Your task to perform on an android device: Search for seafood restaurants on Google Maps Image 0: 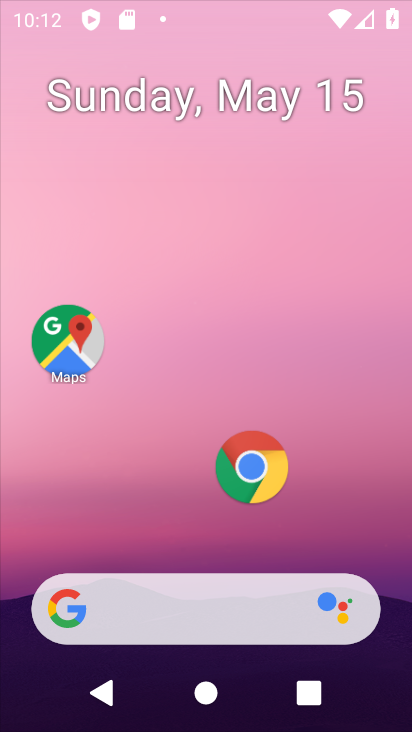
Step 0: drag from (136, 552) to (171, 340)
Your task to perform on an android device: Search for seafood restaurants on Google Maps Image 1: 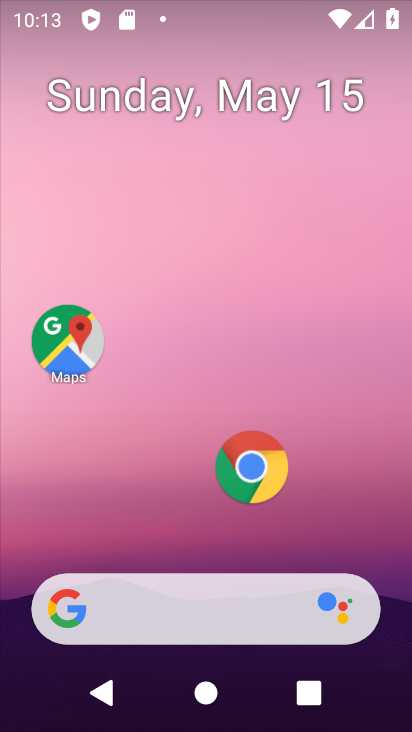
Step 1: drag from (172, 495) to (204, 298)
Your task to perform on an android device: Search for seafood restaurants on Google Maps Image 2: 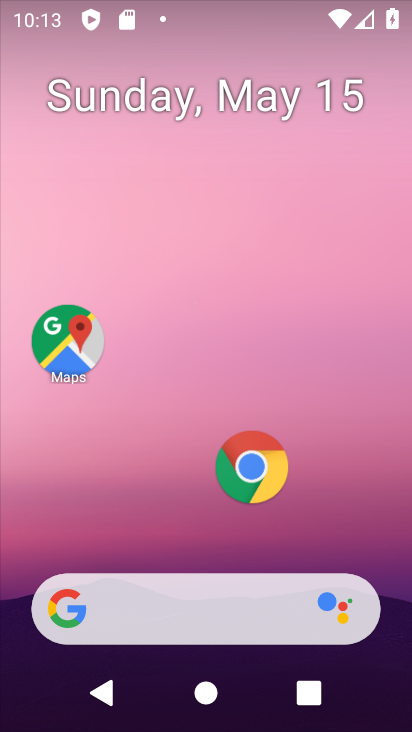
Step 2: drag from (225, 566) to (270, 159)
Your task to perform on an android device: Search for seafood restaurants on Google Maps Image 3: 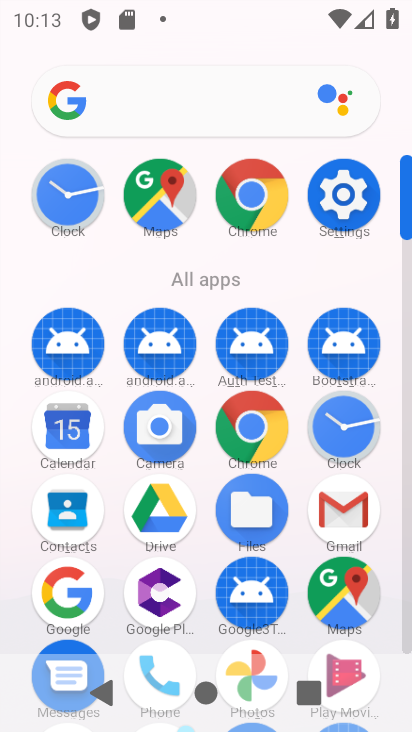
Step 3: click (350, 587)
Your task to perform on an android device: Search for seafood restaurants on Google Maps Image 4: 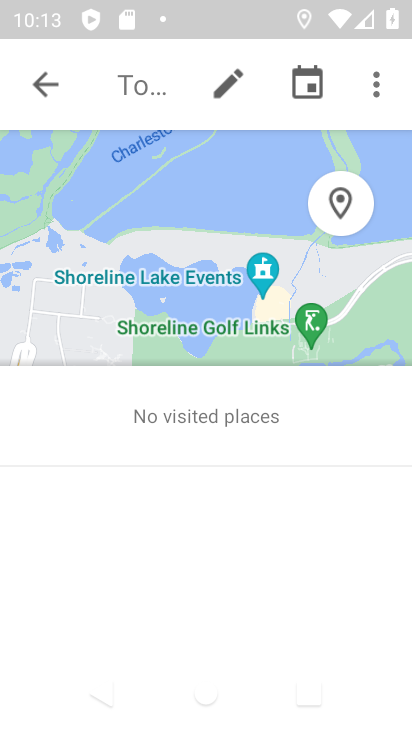
Step 4: click (41, 85)
Your task to perform on an android device: Search for seafood restaurants on Google Maps Image 5: 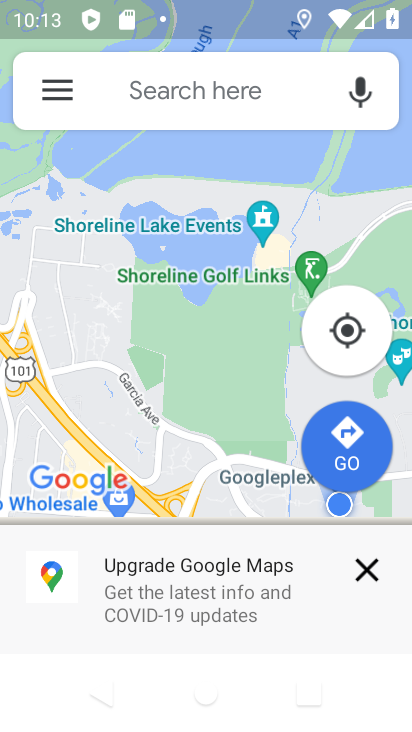
Step 5: click (218, 58)
Your task to perform on an android device: Search for seafood restaurants on Google Maps Image 6: 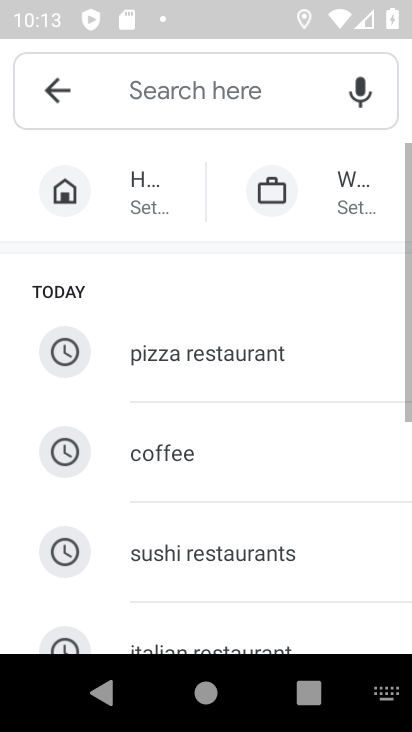
Step 6: drag from (244, 519) to (273, 318)
Your task to perform on an android device: Search for seafood restaurants on Google Maps Image 7: 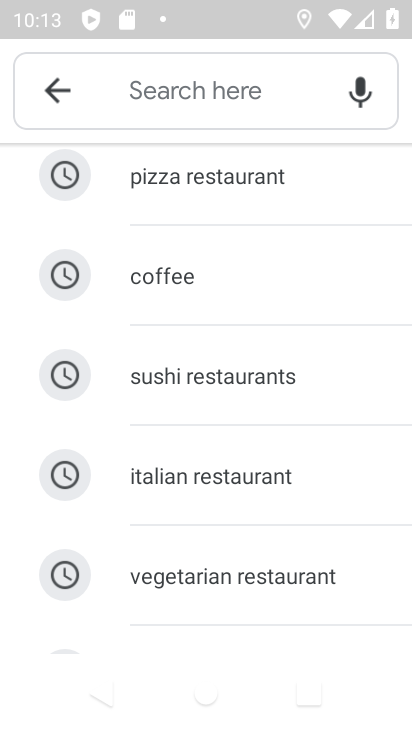
Step 7: drag from (232, 557) to (305, 240)
Your task to perform on an android device: Search for seafood restaurants on Google Maps Image 8: 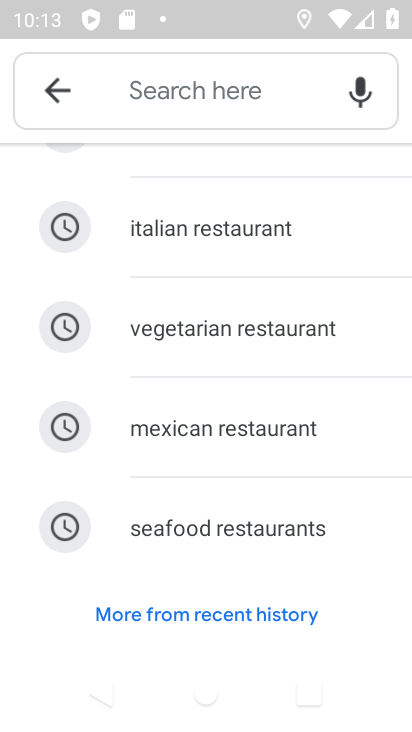
Step 8: click (205, 527)
Your task to perform on an android device: Search for seafood restaurants on Google Maps Image 9: 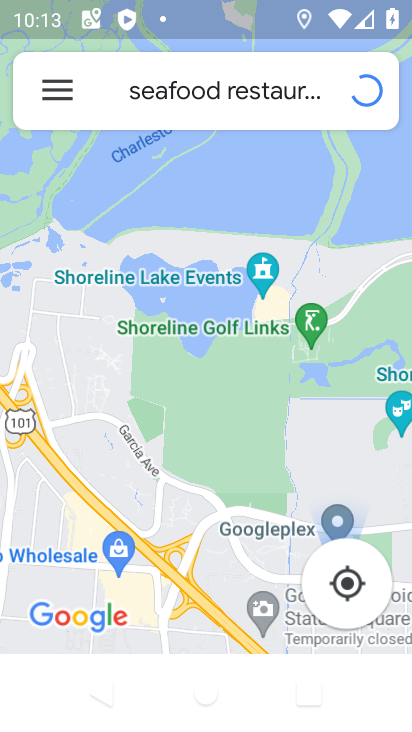
Step 9: task complete